Your task to perform on an android device: see tabs open on other devices in the chrome app Image 0: 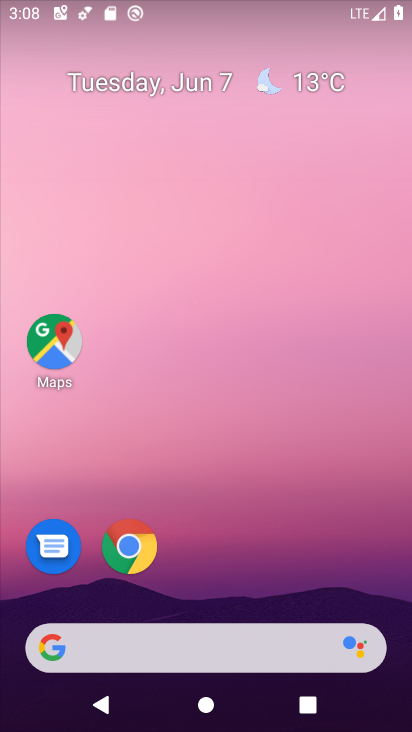
Step 0: drag from (321, 575) to (367, 102)
Your task to perform on an android device: see tabs open on other devices in the chrome app Image 1: 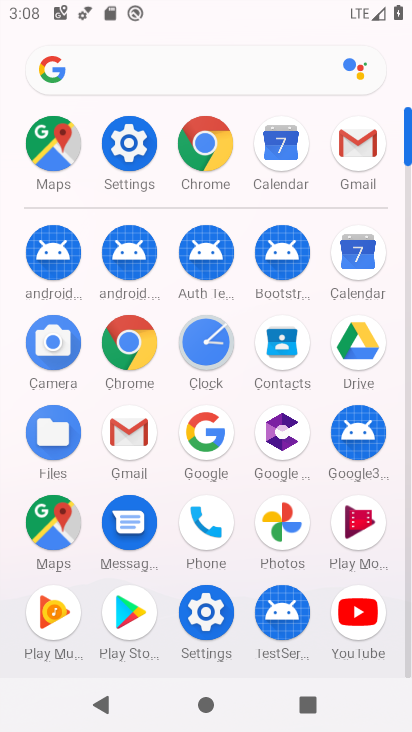
Step 1: click (116, 337)
Your task to perform on an android device: see tabs open on other devices in the chrome app Image 2: 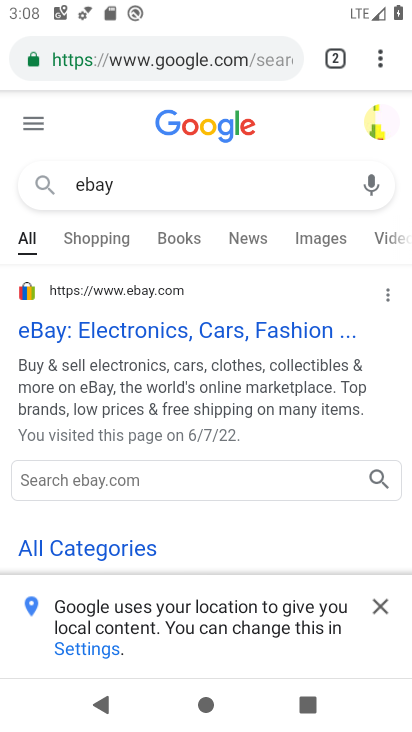
Step 2: click (378, 64)
Your task to perform on an android device: see tabs open on other devices in the chrome app Image 3: 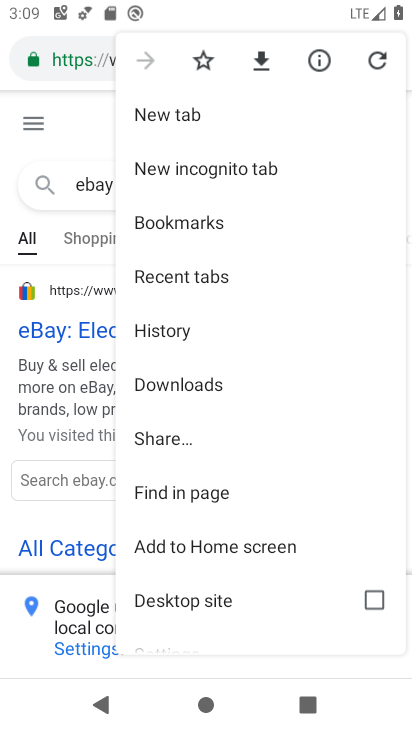
Step 3: click (202, 267)
Your task to perform on an android device: see tabs open on other devices in the chrome app Image 4: 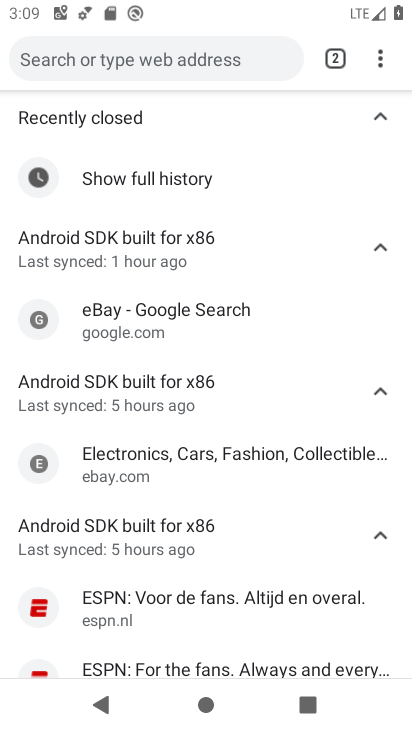
Step 4: drag from (293, 447) to (318, 235)
Your task to perform on an android device: see tabs open on other devices in the chrome app Image 5: 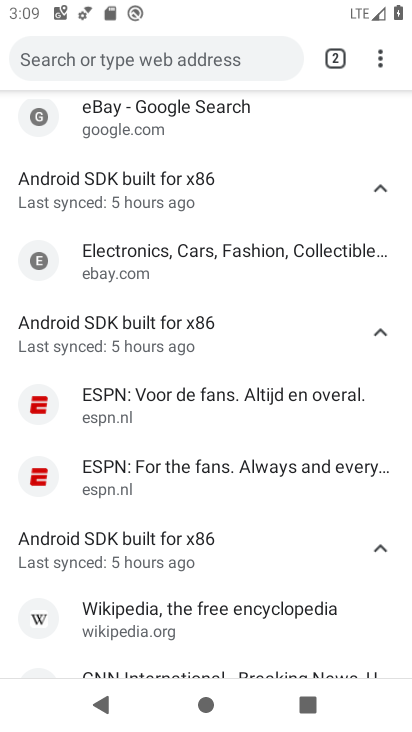
Step 5: click (340, 59)
Your task to perform on an android device: see tabs open on other devices in the chrome app Image 6: 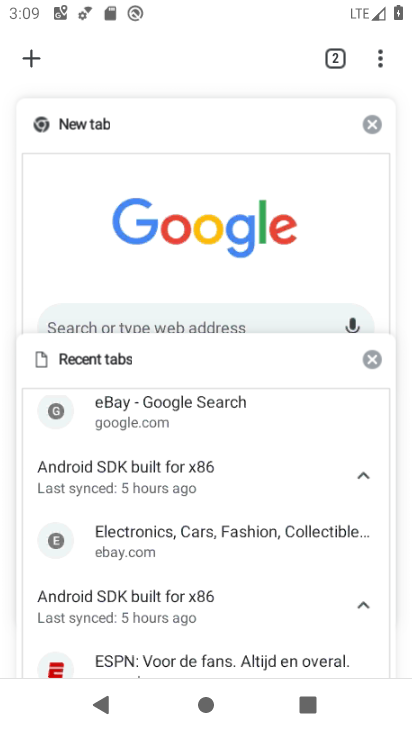
Step 6: task complete